Your task to perform on an android device: turn on bluetooth scan Image 0: 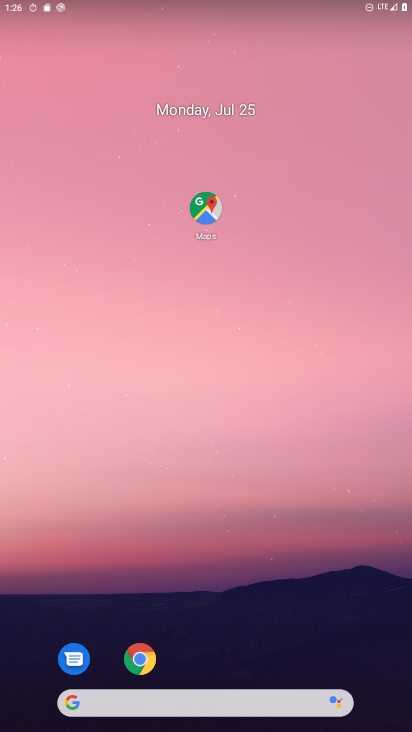
Step 0: drag from (48, 534) to (130, 127)
Your task to perform on an android device: turn on bluetooth scan Image 1: 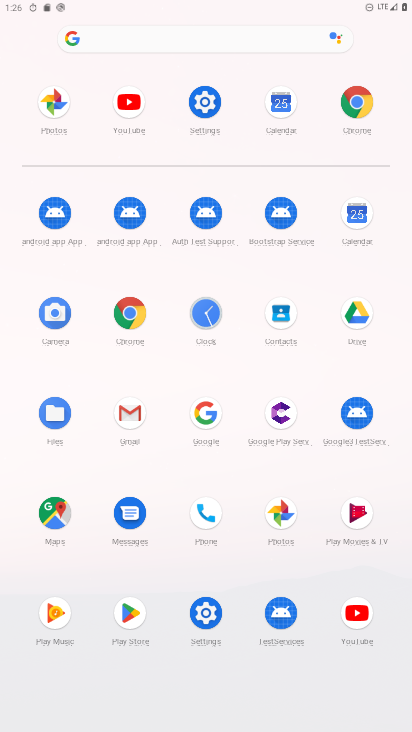
Step 1: click (211, 628)
Your task to perform on an android device: turn on bluetooth scan Image 2: 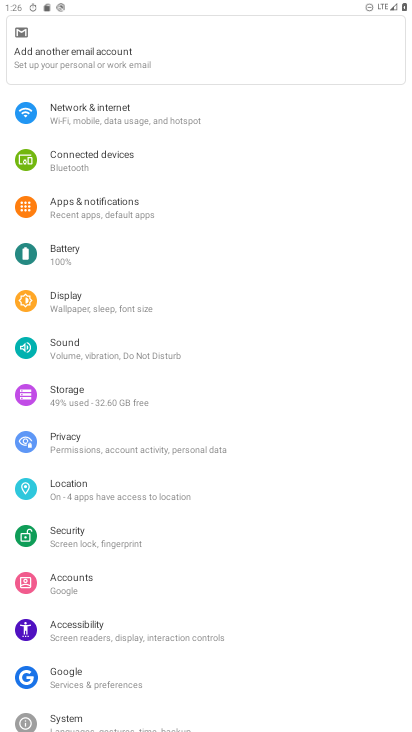
Step 2: click (99, 158)
Your task to perform on an android device: turn on bluetooth scan Image 3: 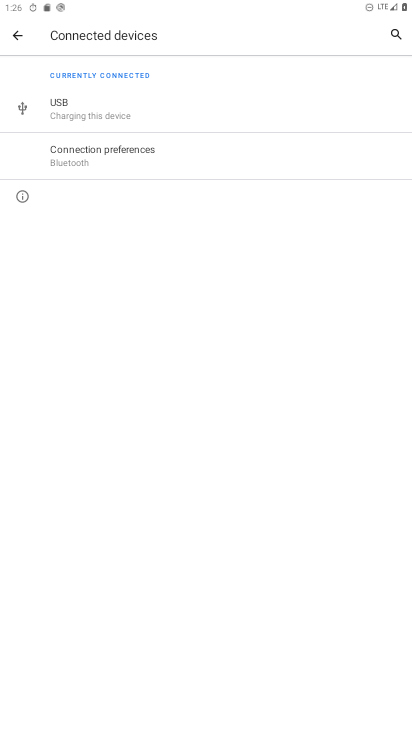
Step 3: click (90, 142)
Your task to perform on an android device: turn on bluetooth scan Image 4: 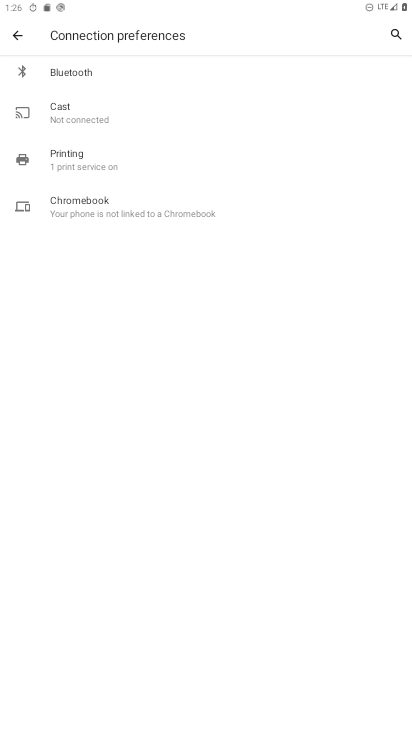
Step 4: click (92, 72)
Your task to perform on an android device: turn on bluetooth scan Image 5: 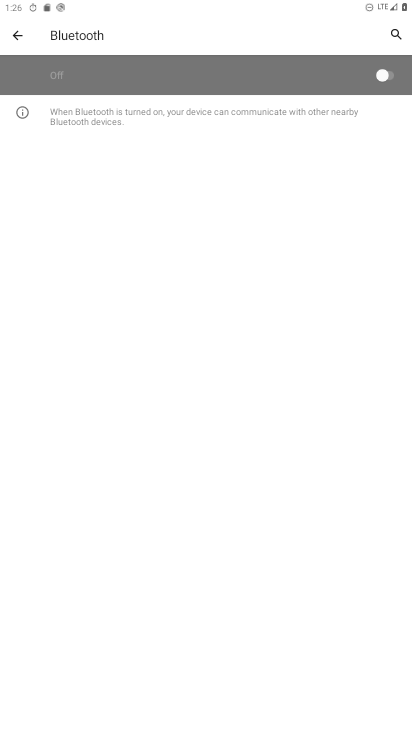
Step 5: task complete